Your task to perform on an android device: Go to CNN.com Image 0: 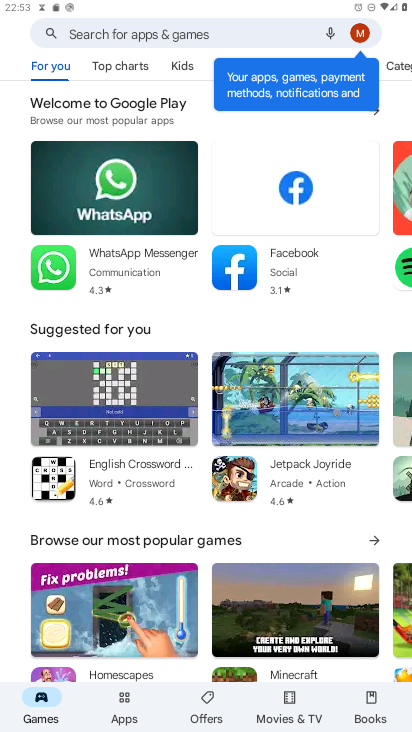
Step 0: press home button
Your task to perform on an android device: Go to CNN.com Image 1: 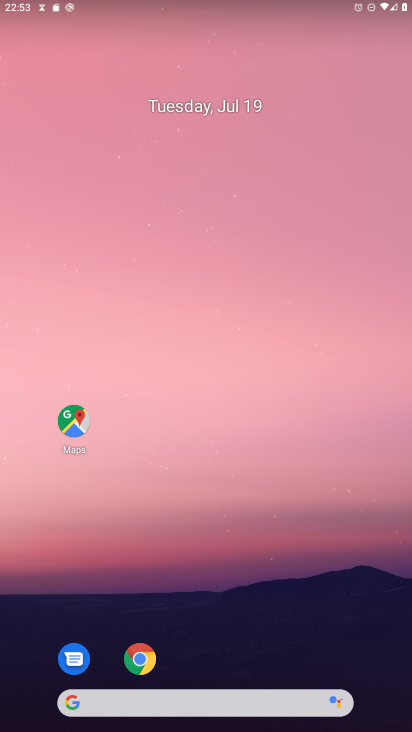
Step 1: drag from (222, 648) to (244, 120)
Your task to perform on an android device: Go to CNN.com Image 2: 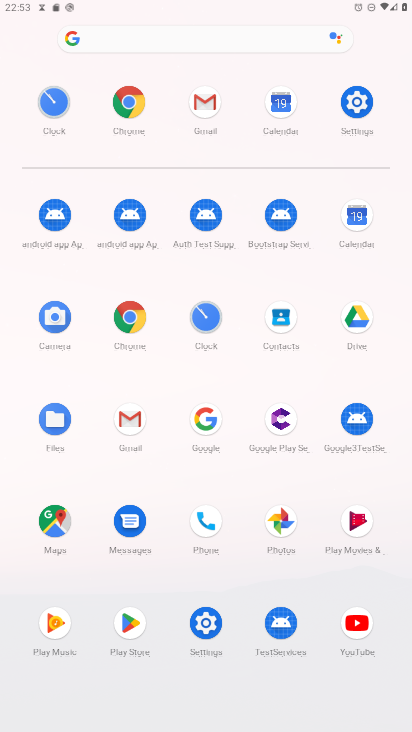
Step 2: click (130, 102)
Your task to perform on an android device: Go to CNN.com Image 3: 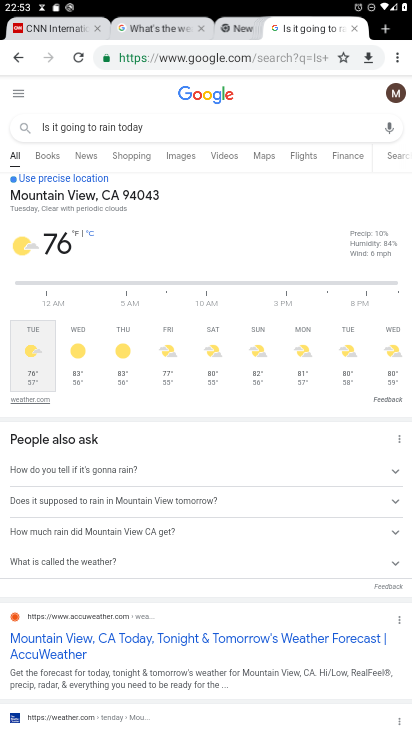
Step 3: click (385, 24)
Your task to perform on an android device: Go to CNN.com Image 4: 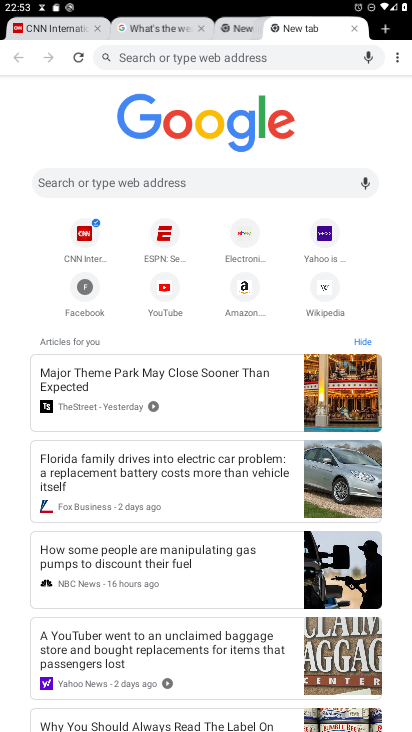
Step 4: click (78, 245)
Your task to perform on an android device: Go to CNN.com Image 5: 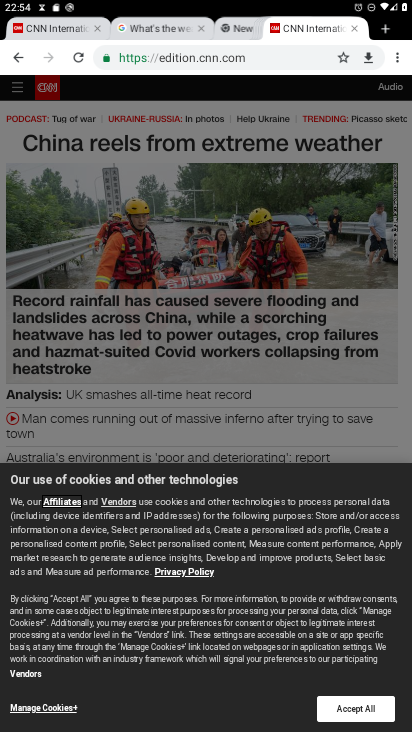
Step 5: task complete